Your task to perform on an android device: turn off picture-in-picture Image 0: 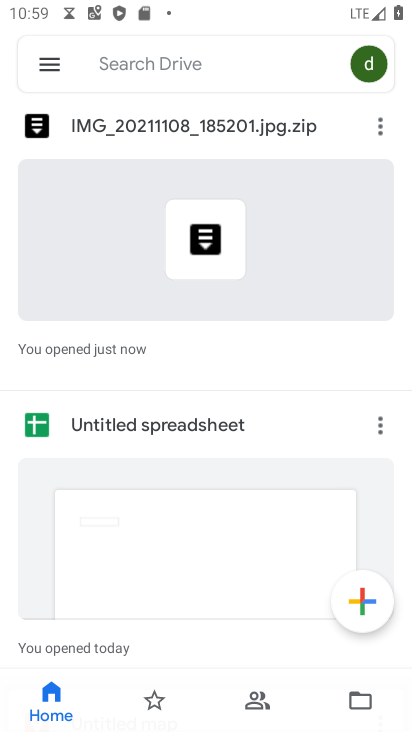
Step 0: press home button
Your task to perform on an android device: turn off picture-in-picture Image 1: 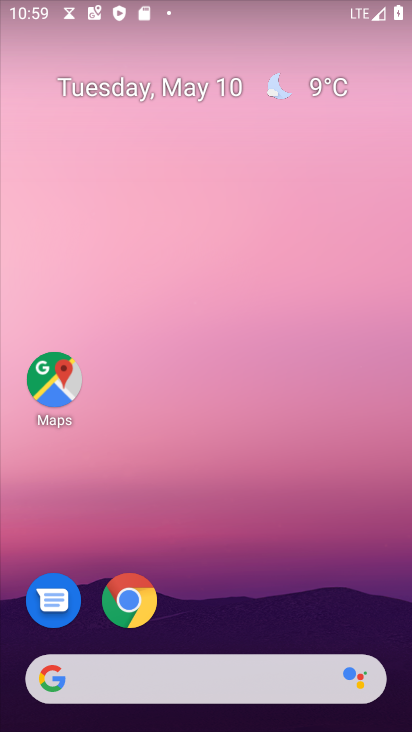
Step 1: drag from (244, 579) to (181, 106)
Your task to perform on an android device: turn off picture-in-picture Image 2: 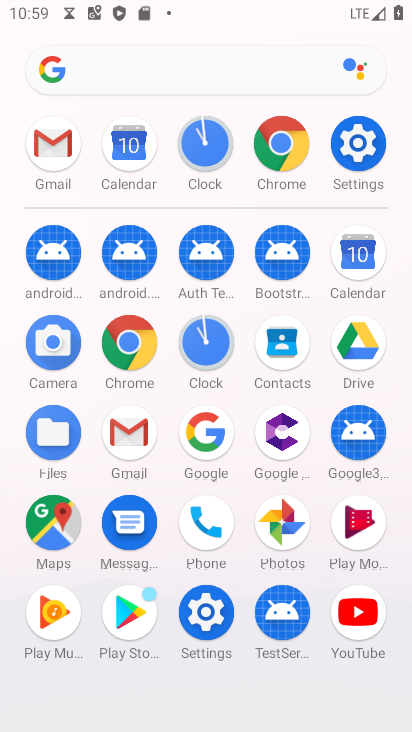
Step 2: click (354, 152)
Your task to perform on an android device: turn off picture-in-picture Image 3: 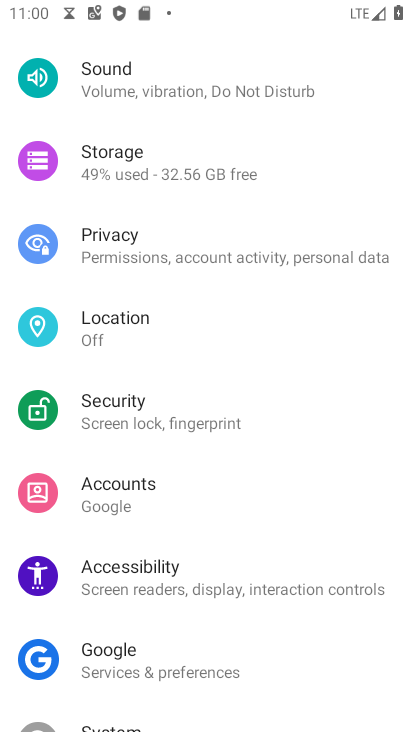
Step 3: drag from (232, 181) to (232, 591)
Your task to perform on an android device: turn off picture-in-picture Image 4: 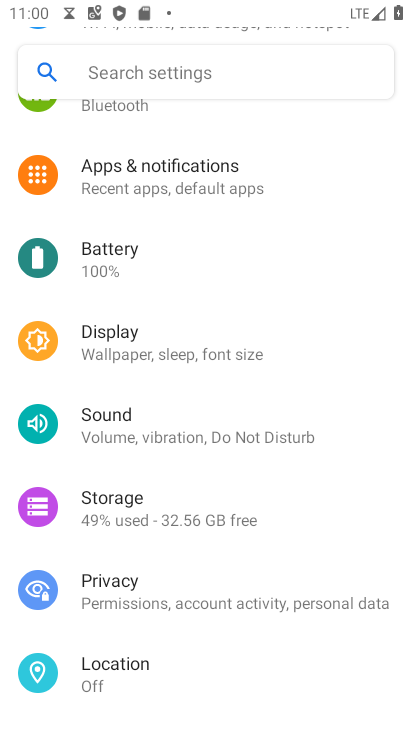
Step 4: click (202, 186)
Your task to perform on an android device: turn off picture-in-picture Image 5: 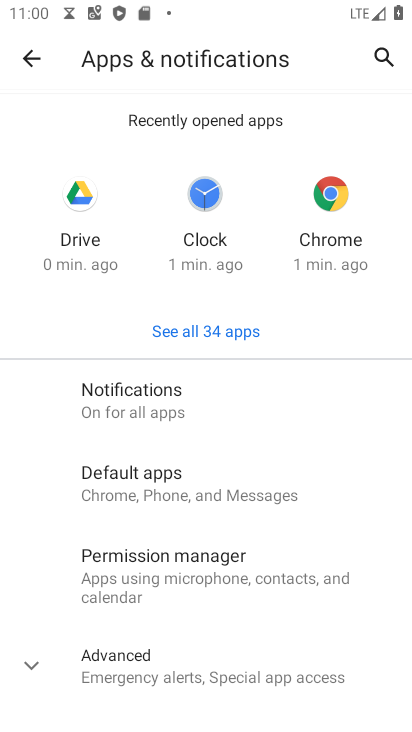
Step 5: click (222, 659)
Your task to perform on an android device: turn off picture-in-picture Image 6: 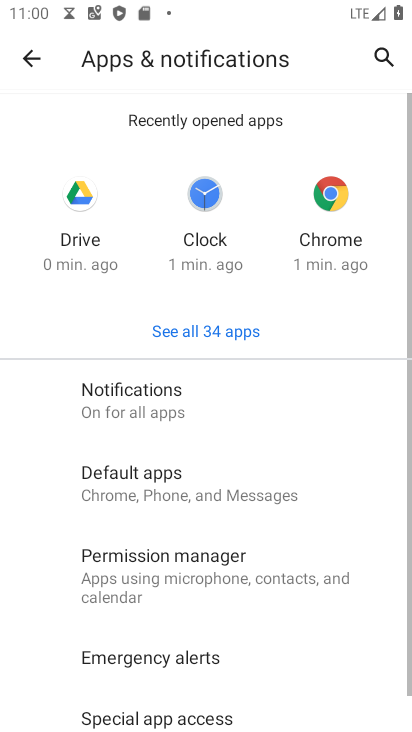
Step 6: drag from (194, 690) to (212, 428)
Your task to perform on an android device: turn off picture-in-picture Image 7: 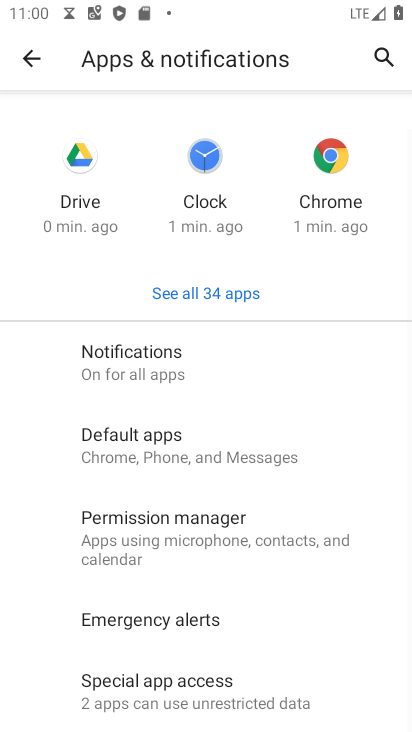
Step 7: click (198, 687)
Your task to perform on an android device: turn off picture-in-picture Image 8: 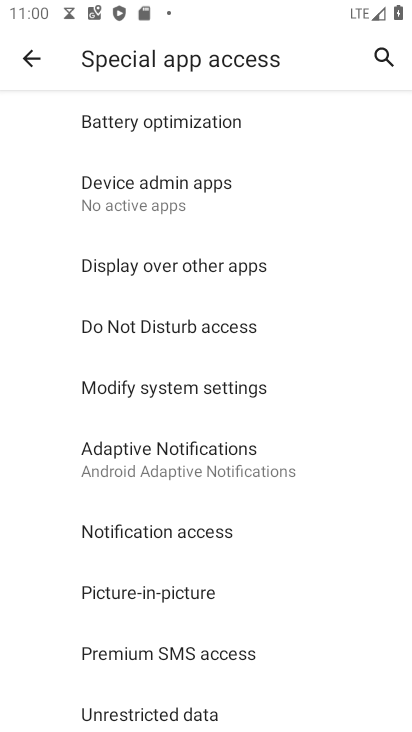
Step 8: click (189, 583)
Your task to perform on an android device: turn off picture-in-picture Image 9: 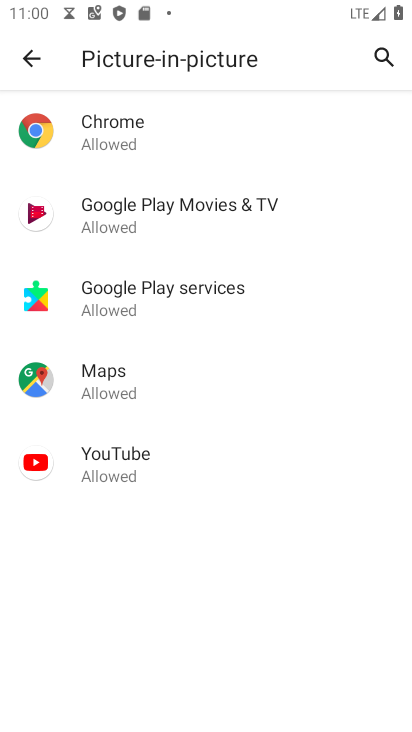
Step 9: click (234, 206)
Your task to perform on an android device: turn off picture-in-picture Image 10: 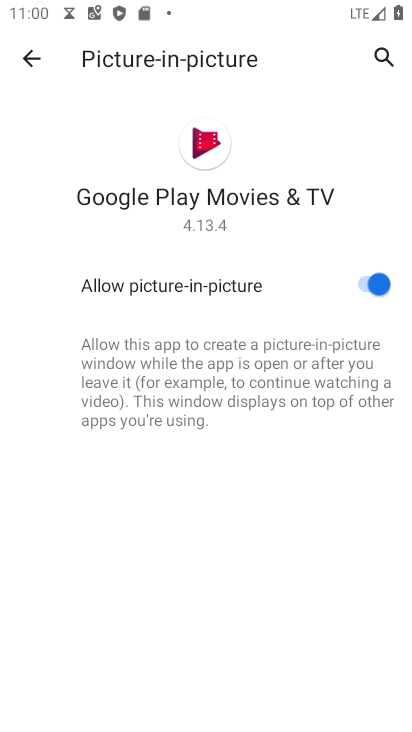
Step 10: click (355, 286)
Your task to perform on an android device: turn off picture-in-picture Image 11: 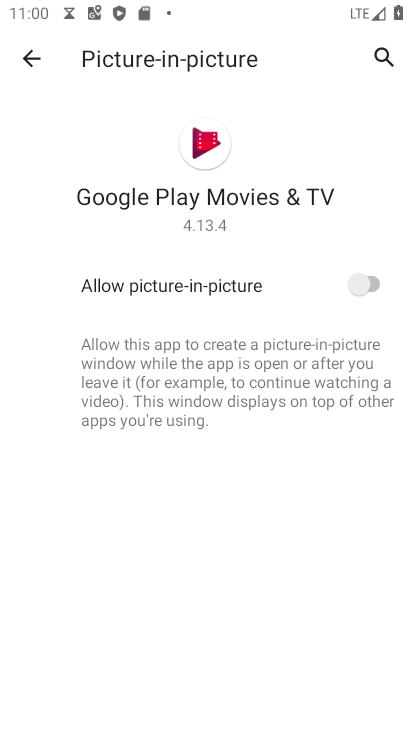
Step 11: task complete